Your task to perform on an android device: Open my contact list Image 0: 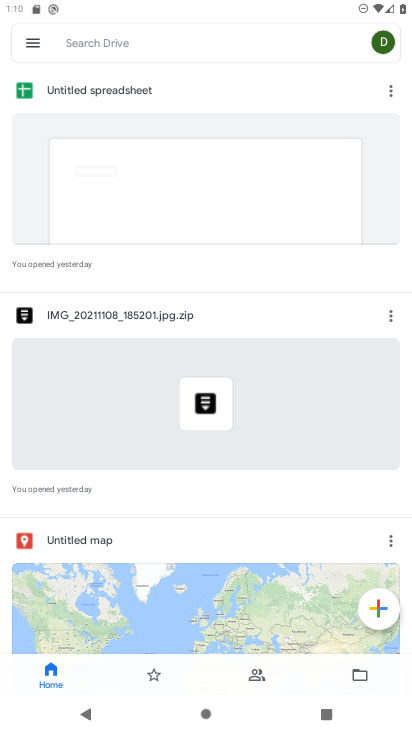
Step 0: press home button
Your task to perform on an android device: Open my contact list Image 1: 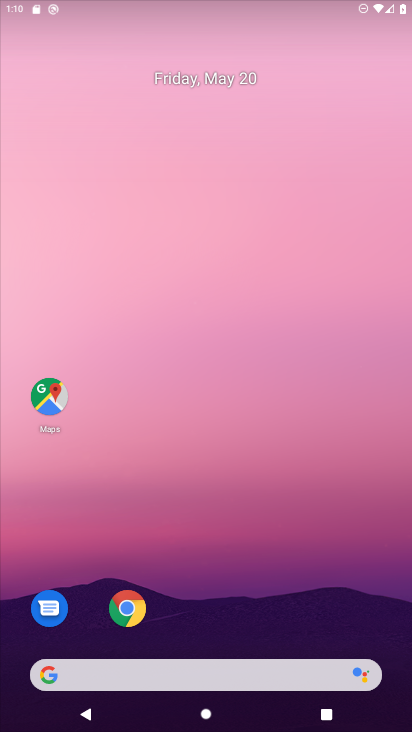
Step 1: drag from (326, 588) to (304, 5)
Your task to perform on an android device: Open my contact list Image 2: 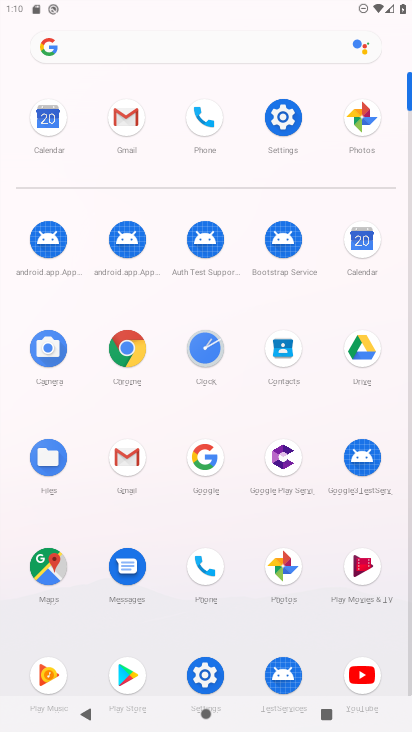
Step 2: click (287, 356)
Your task to perform on an android device: Open my contact list Image 3: 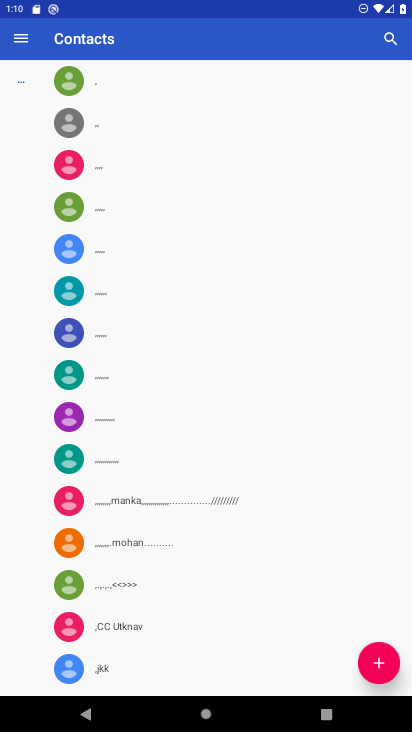
Step 3: click (368, 664)
Your task to perform on an android device: Open my contact list Image 4: 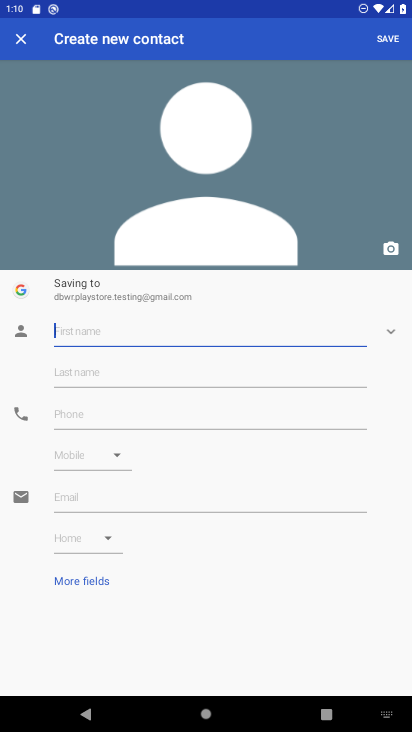
Step 4: type "fd"
Your task to perform on an android device: Open my contact list Image 5: 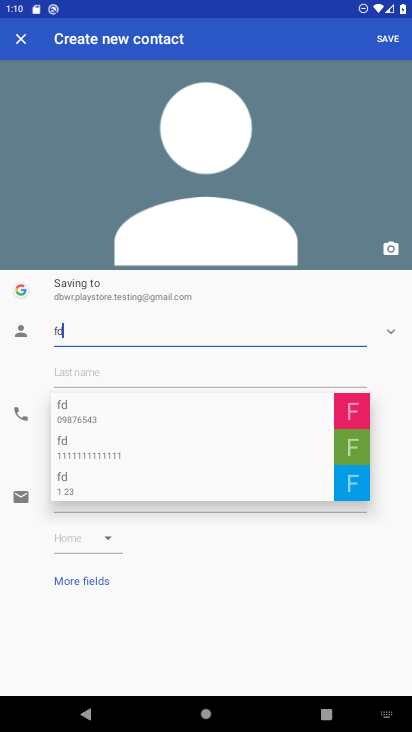
Step 5: click (290, 592)
Your task to perform on an android device: Open my contact list Image 6: 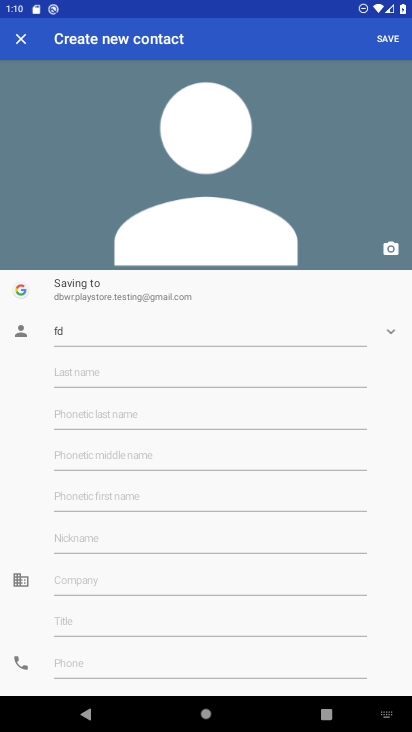
Step 6: click (90, 412)
Your task to perform on an android device: Open my contact list Image 7: 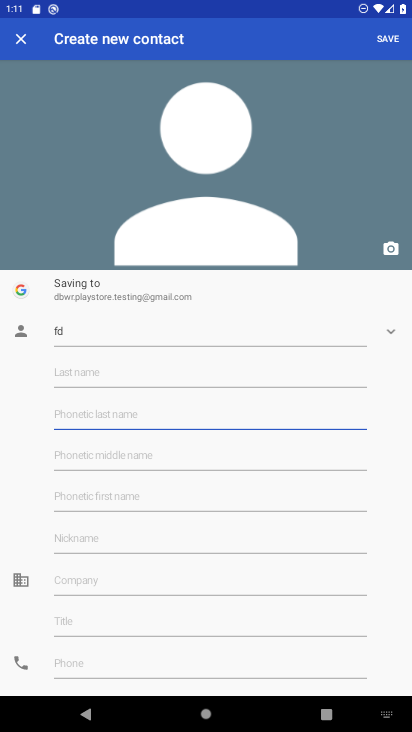
Step 7: click (379, 326)
Your task to perform on an android device: Open my contact list Image 8: 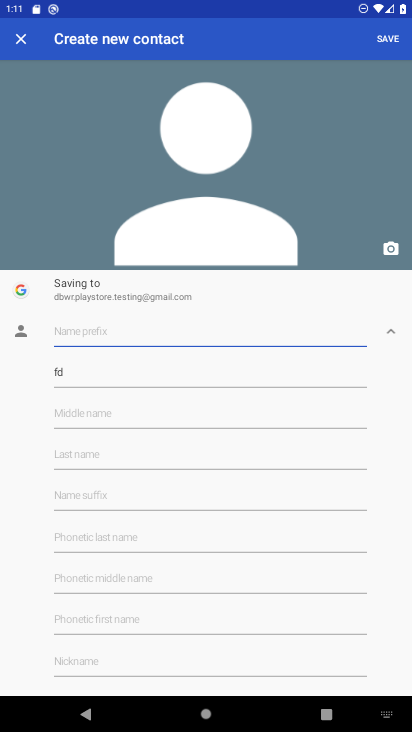
Step 8: click (383, 326)
Your task to perform on an android device: Open my contact list Image 9: 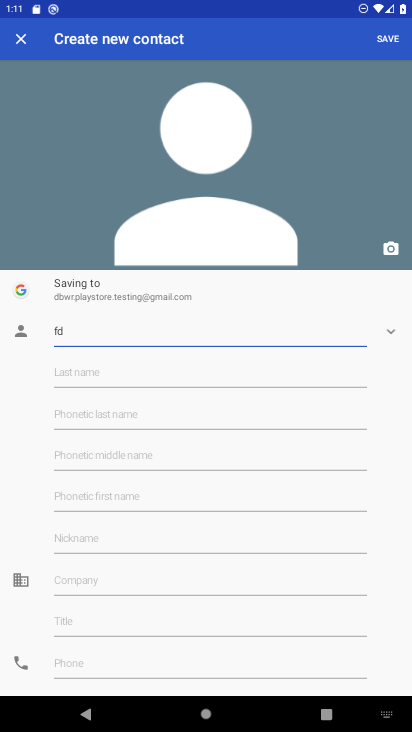
Step 9: click (114, 412)
Your task to perform on an android device: Open my contact list Image 10: 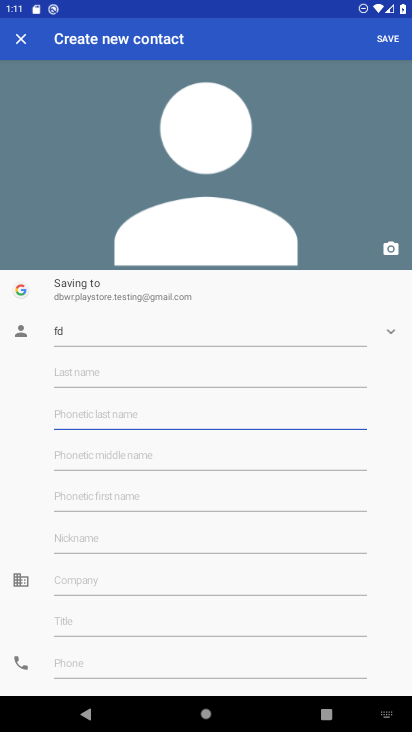
Step 10: type "--"
Your task to perform on an android device: Open my contact list Image 11: 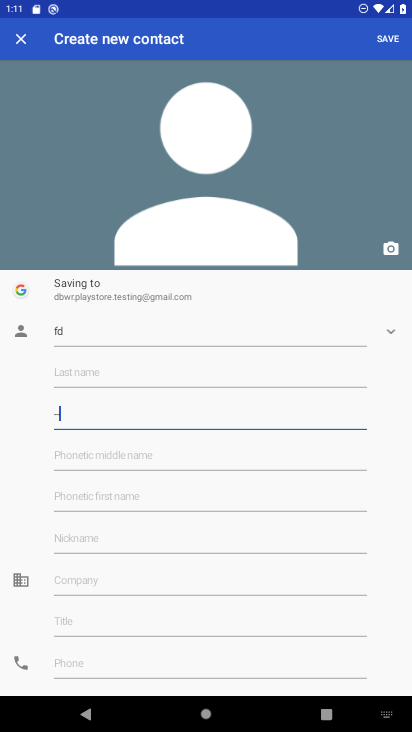
Step 11: click (387, 39)
Your task to perform on an android device: Open my contact list Image 12: 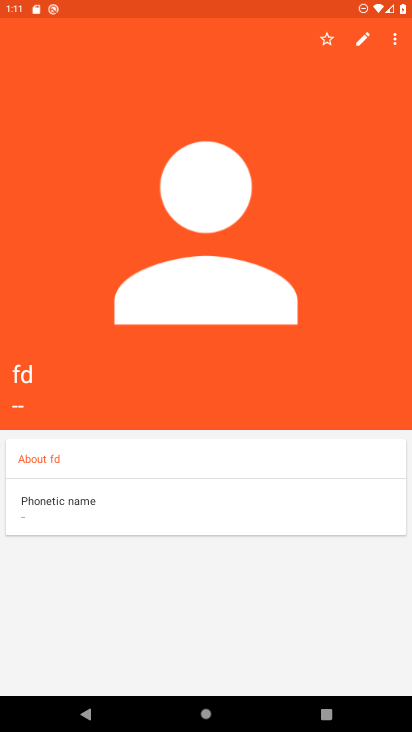
Step 12: task complete